Your task to perform on an android device: Find coffee shops on Maps Image 0: 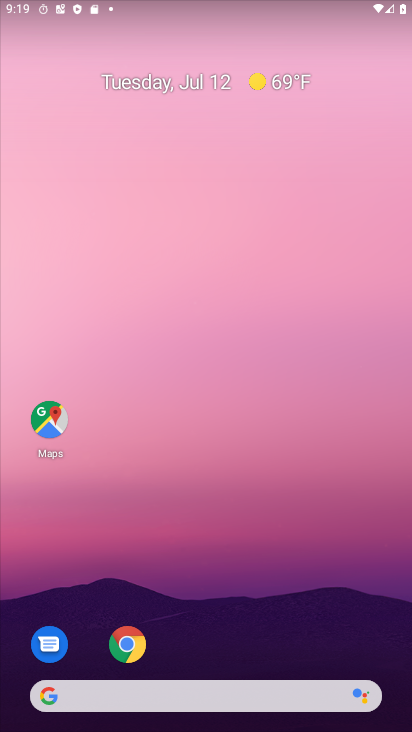
Step 0: press home button
Your task to perform on an android device: Find coffee shops on Maps Image 1: 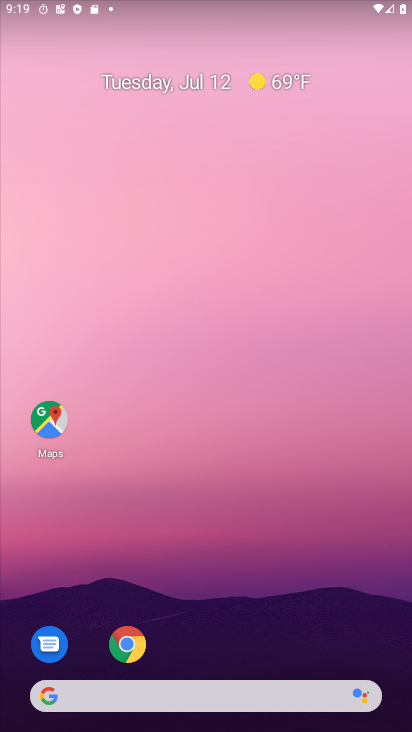
Step 1: click (50, 414)
Your task to perform on an android device: Find coffee shops on Maps Image 2: 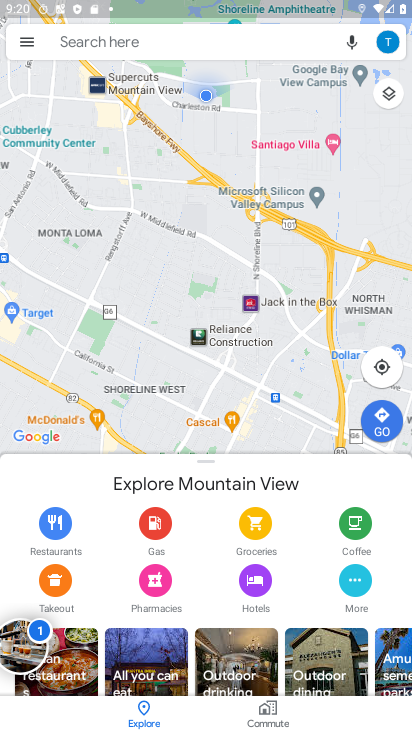
Step 2: click (103, 38)
Your task to perform on an android device: Find coffee shops on Maps Image 3: 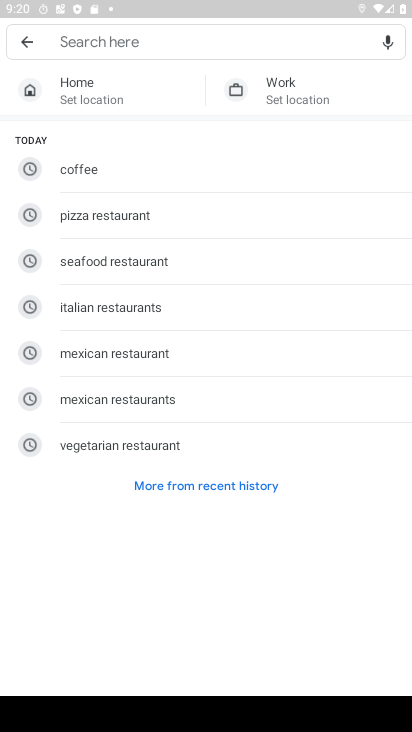
Step 3: click (94, 162)
Your task to perform on an android device: Find coffee shops on Maps Image 4: 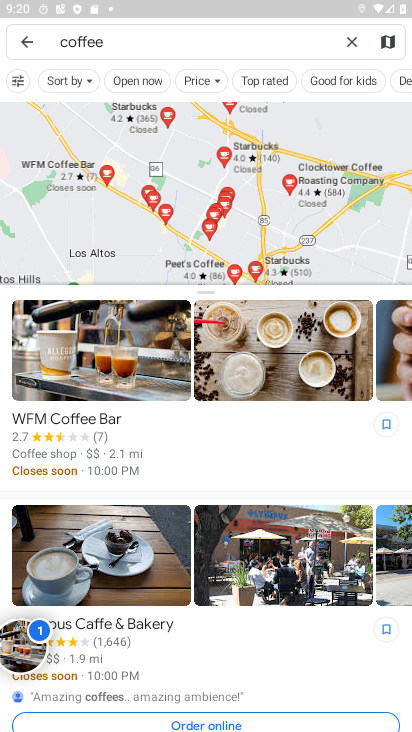
Step 4: task complete